Your task to perform on an android device: turn off translation in the chrome app Image 0: 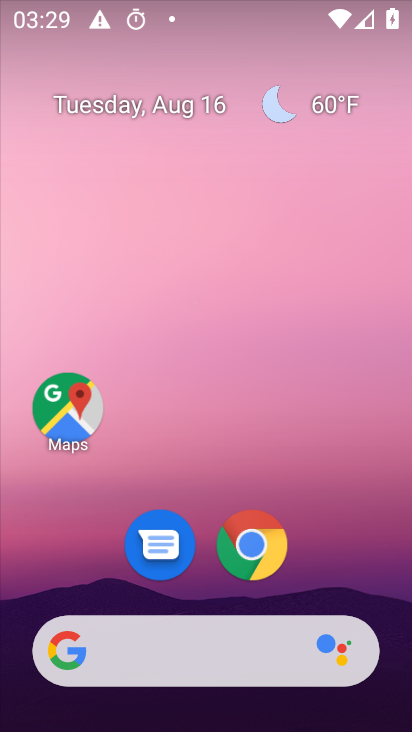
Step 0: click (245, 551)
Your task to perform on an android device: turn off translation in the chrome app Image 1: 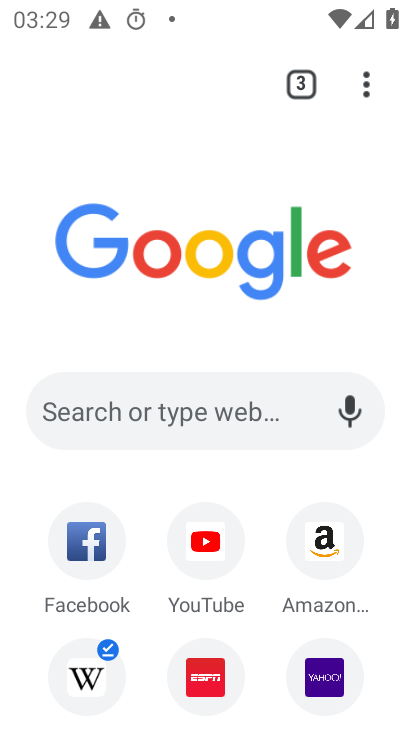
Step 1: click (365, 85)
Your task to perform on an android device: turn off translation in the chrome app Image 2: 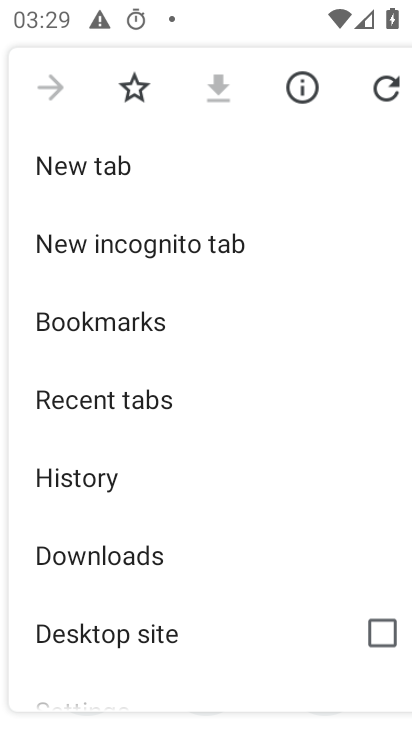
Step 2: drag from (94, 649) to (90, 261)
Your task to perform on an android device: turn off translation in the chrome app Image 3: 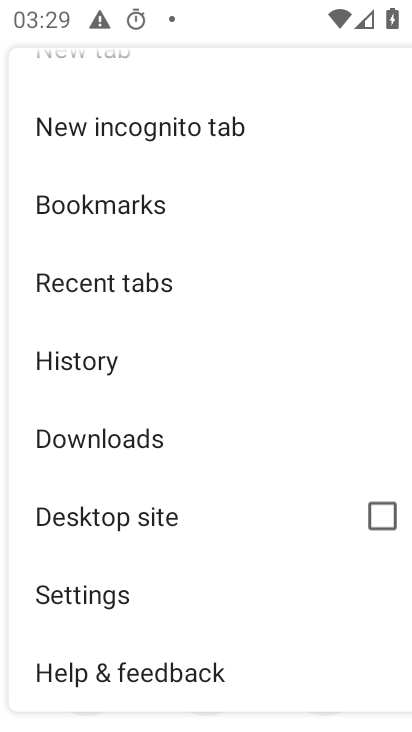
Step 3: click (78, 600)
Your task to perform on an android device: turn off translation in the chrome app Image 4: 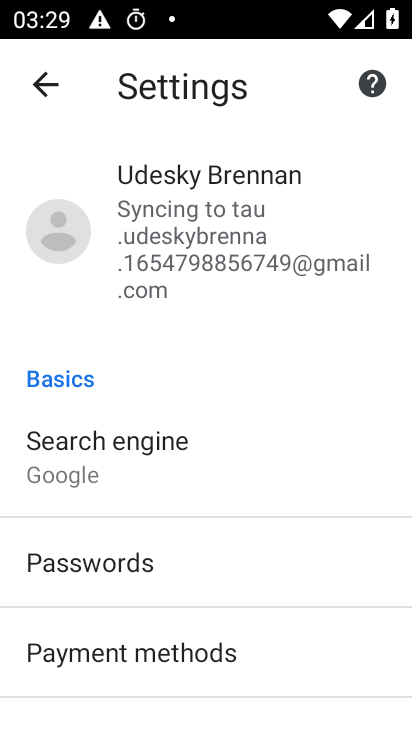
Step 4: drag from (112, 688) to (118, 284)
Your task to perform on an android device: turn off translation in the chrome app Image 5: 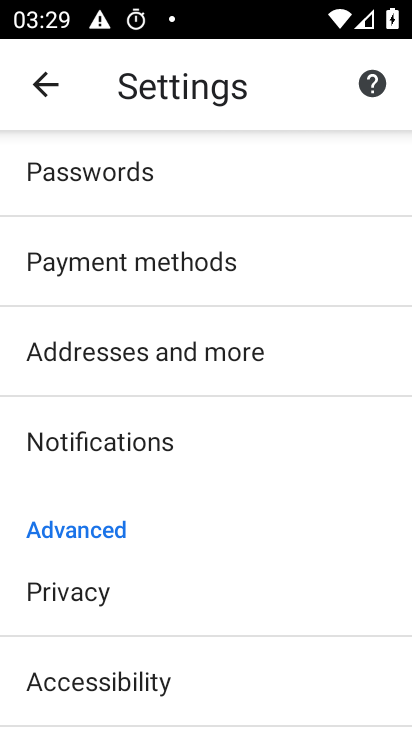
Step 5: drag from (97, 692) to (93, 388)
Your task to perform on an android device: turn off translation in the chrome app Image 6: 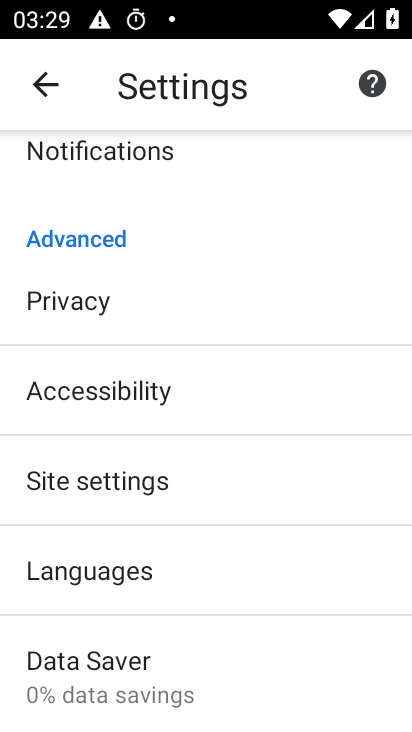
Step 6: click (85, 564)
Your task to perform on an android device: turn off translation in the chrome app Image 7: 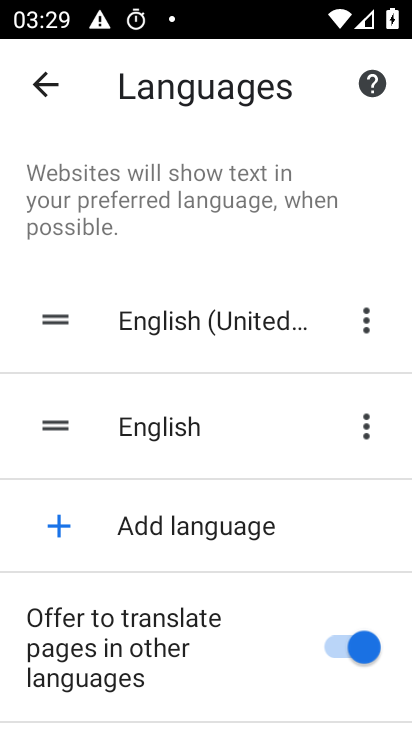
Step 7: click (337, 641)
Your task to perform on an android device: turn off translation in the chrome app Image 8: 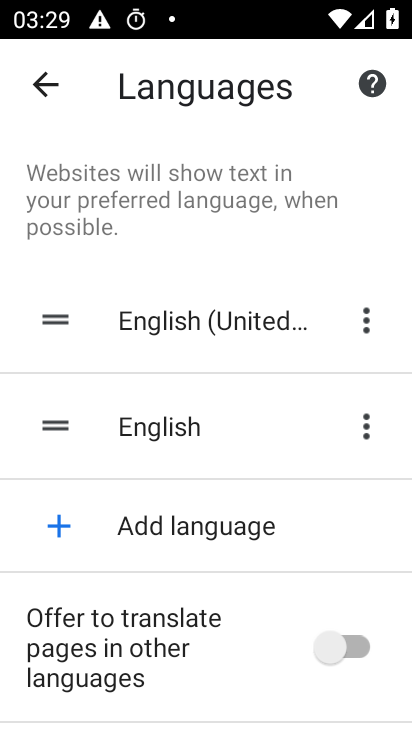
Step 8: task complete